Your task to perform on an android device: toggle data saver in the chrome app Image 0: 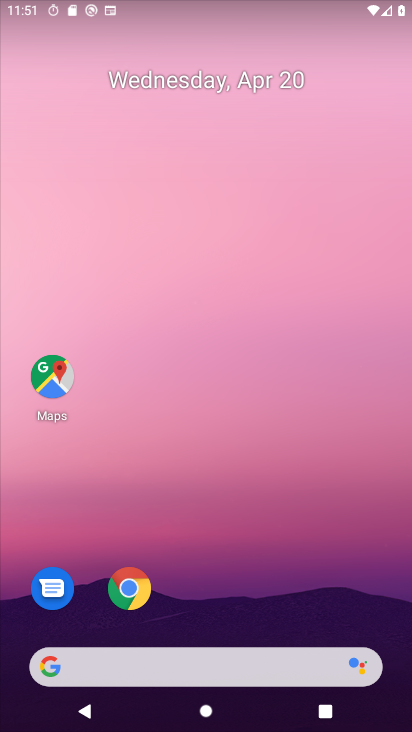
Step 0: click (127, 580)
Your task to perform on an android device: toggle data saver in the chrome app Image 1: 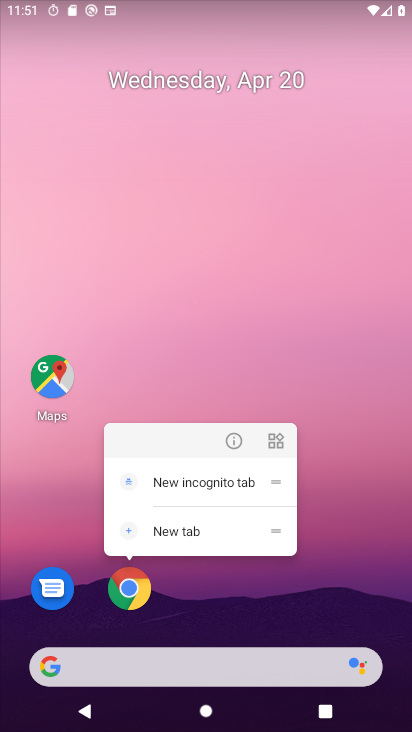
Step 1: click (126, 584)
Your task to perform on an android device: toggle data saver in the chrome app Image 2: 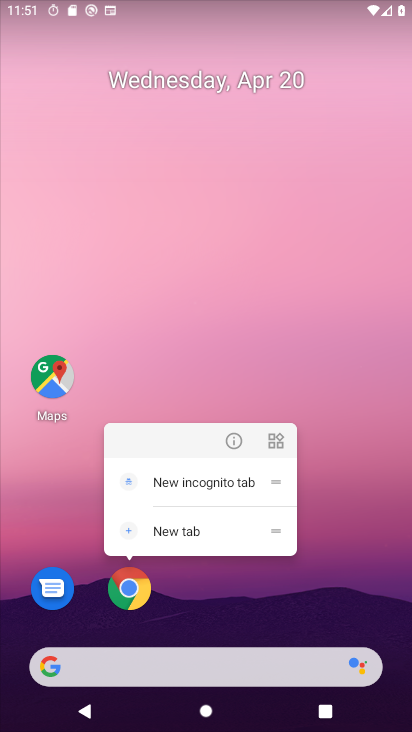
Step 2: click (126, 584)
Your task to perform on an android device: toggle data saver in the chrome app Image 3: 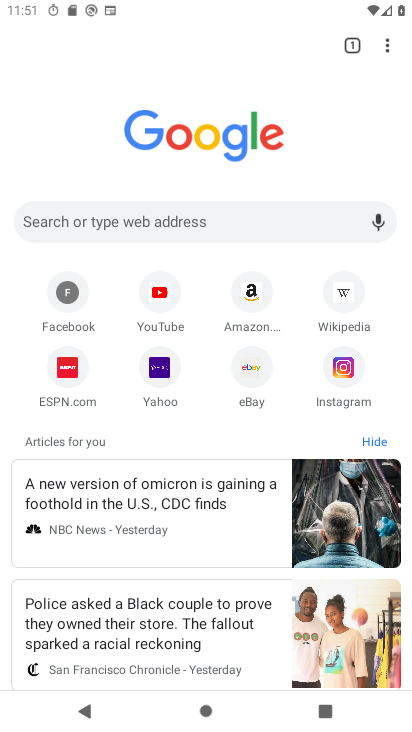
Step 3: click (386, 41)
Your task to perform on an android device: toggle data saver in the chrome app Image 4: 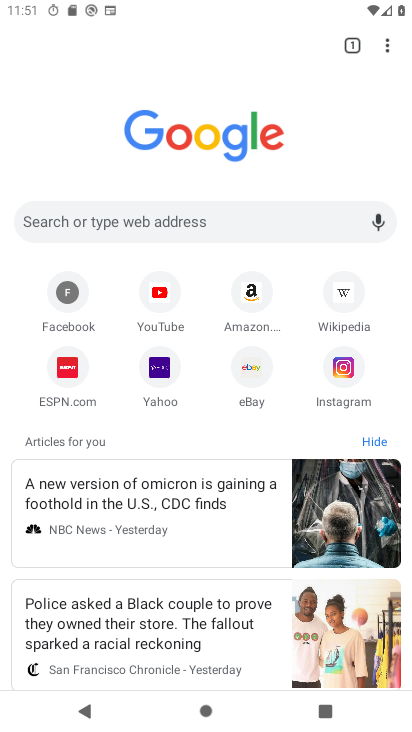
Step 4: click (386, 37)
Your task to perform on an android device: toggle data saver in the chrome app Image 5: 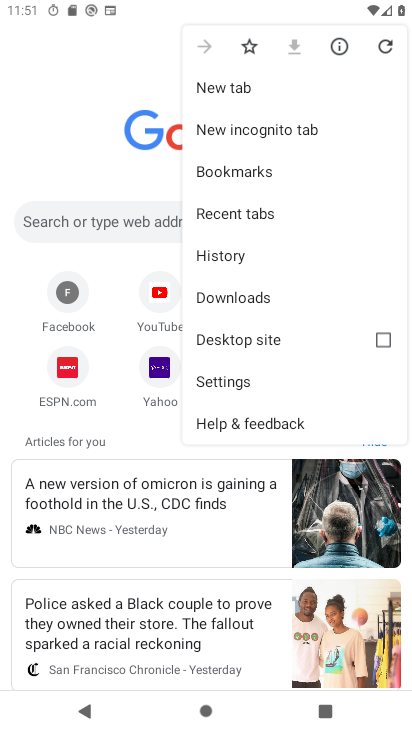
Step 5: click (258, 374)
Your task to perform on an android device: toggle data saver in the chrome app Image 6: 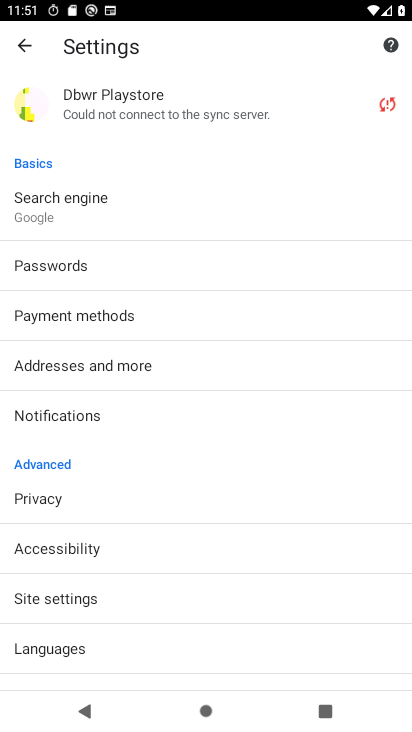
Step 6: drag from (126, 628) to (176, 137)
Your task to perform on an android device: toggle data saver in the chrome app Image 7: 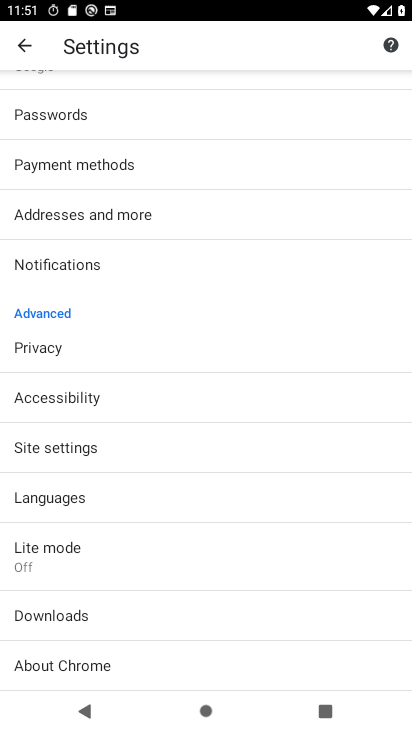
Step 7: click (61, 562)
Your task to perform on an android device: toggle data saver in the chrome app Image 8: 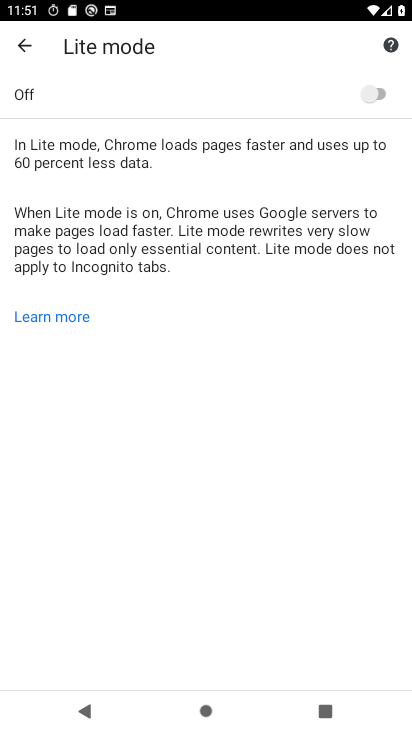
Step 8: click (381, 89)
Your task to perform on an android device: toggle data saver in the chrome app Image 9: 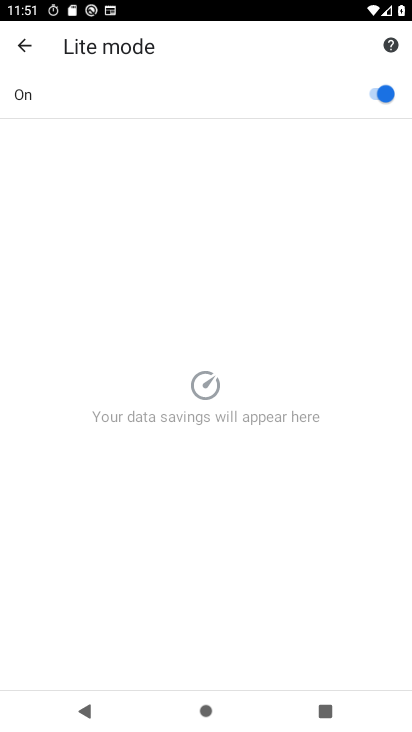
Step 9: task complete